Your task to perform on an android device: Go to accessibility settings Image 0: 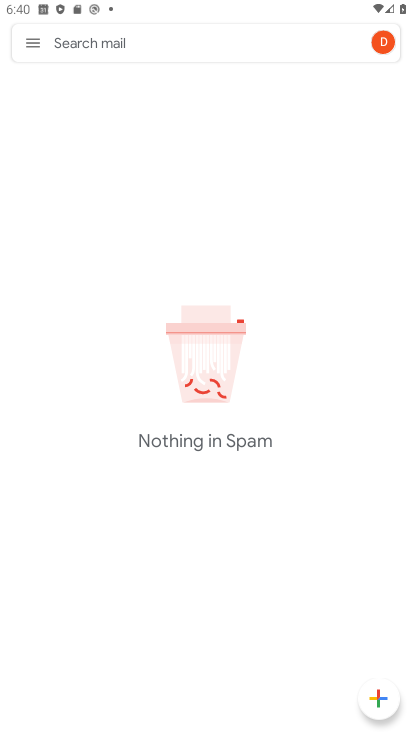
Step 0: press home button
Your task to perform on an android device: Go to accessibility settings Image 1: 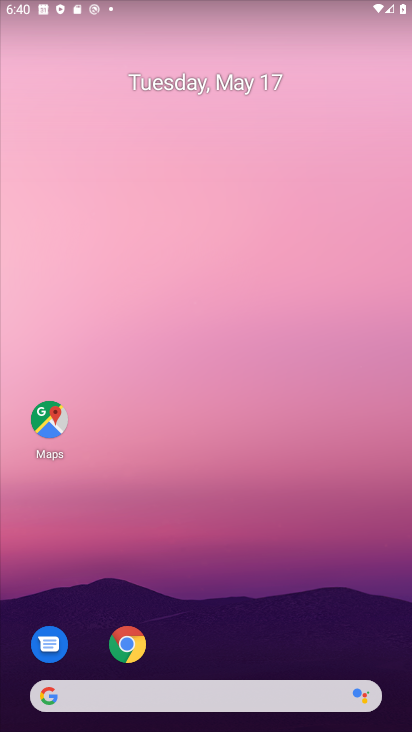
Step 1: press home button
Your task to perform on an android device: Go to accessibility settings Image 2: 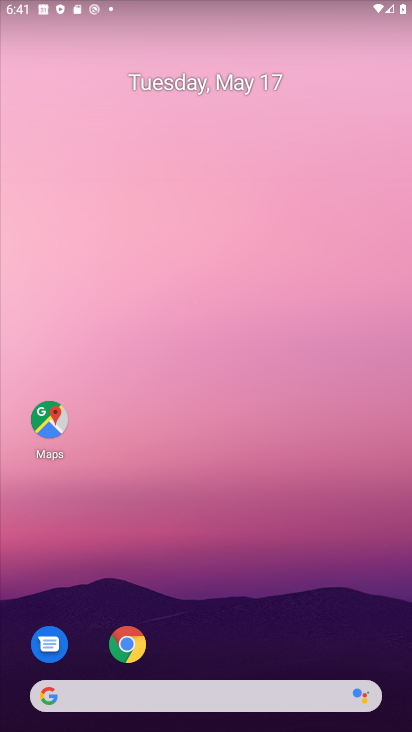
Step 2: drag from (341, 660) to (217, 50)
Your task to perform on an android device: Go to accessibility settings Image 3: 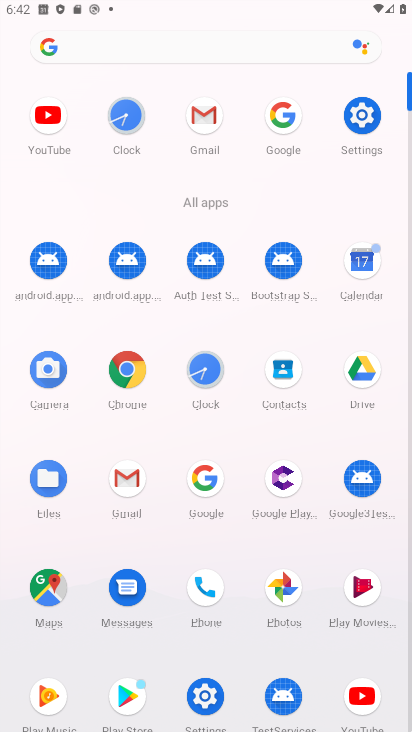
Step 3: click (189, 685)
Your task to perform on an android device: Go to accessibility settings Image 4: 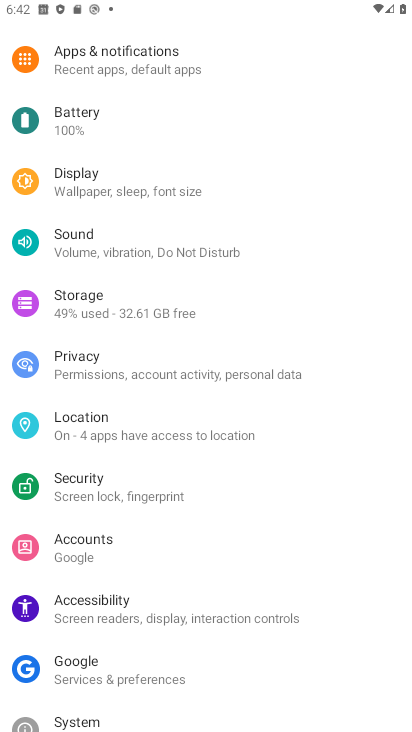
Step 4: click (124, 619)
Your task to perform on an android device: Go to accessibility settings Image 5: 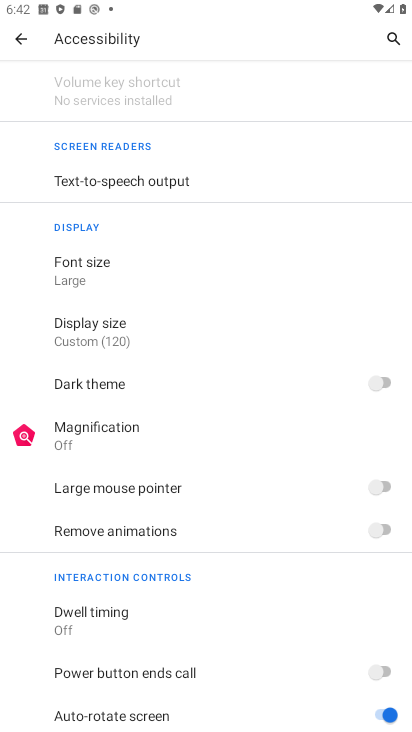
Step 5: task complete